Your task to perform on an android device: Go to ESPN.com Image 0: 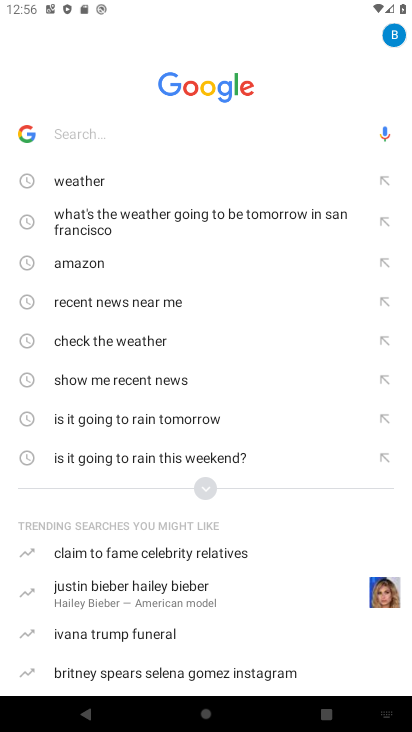
Step 0: press home button
Your task to perform on an android device: Go to ESPN.com Image 1: 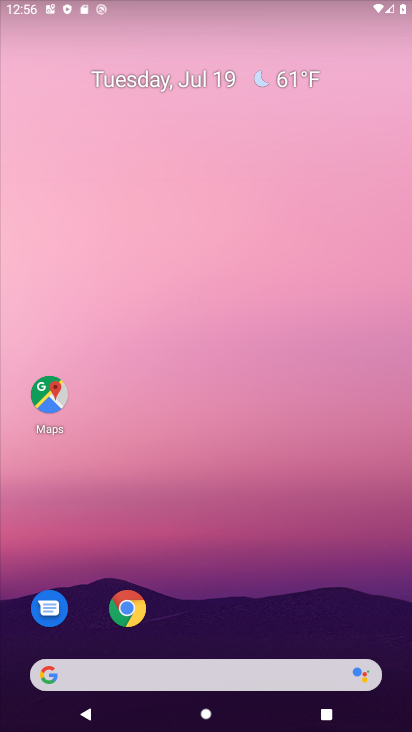
Step 1: drag from (263, 537) to (330, 98)
Your task to perform on an android device: Go to ESPN.com Image 2: 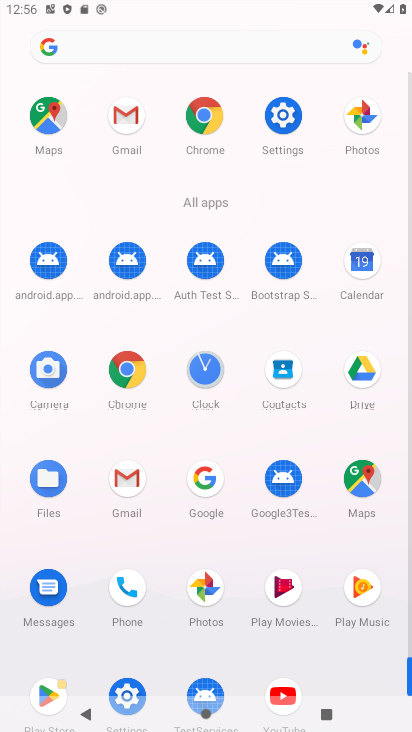
Step 2: click (202, 121)
Your task to perform on an android device: Go to ESPN.com Image 3: 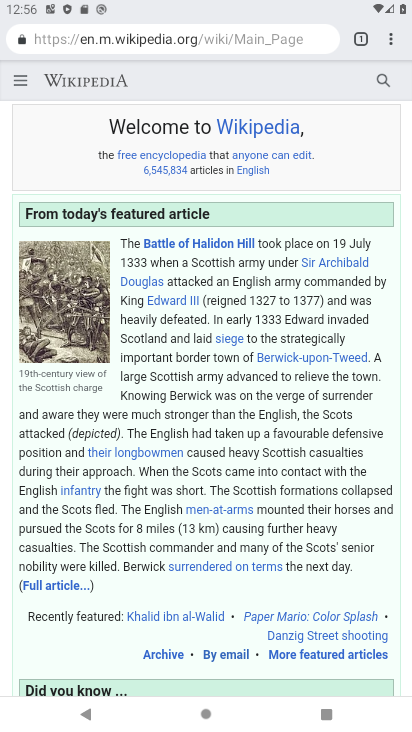
Step 3: press back button
Your task to perform on an android device: Go to ESPN.com Image 4: 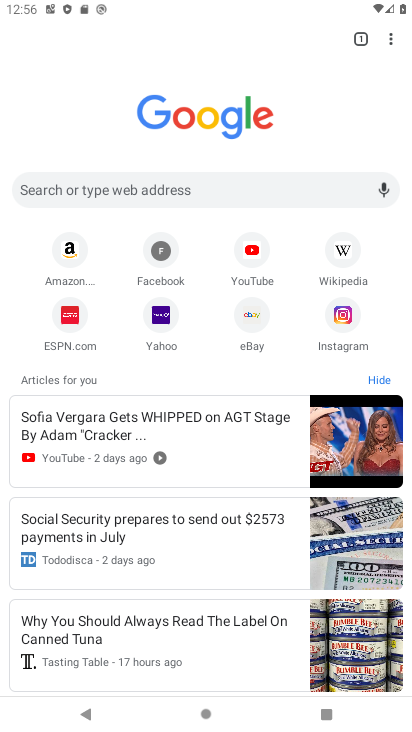
Step 4: click (55, 329)
Your task to perform on an android device: Go to ESPN.com Image 5: 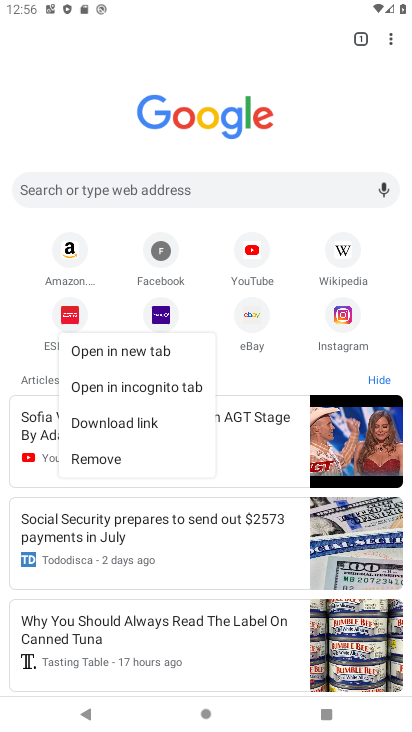
Step 5: click (81, 304)
Your task to perform on an android device: Go to ESPN.com Image 6: 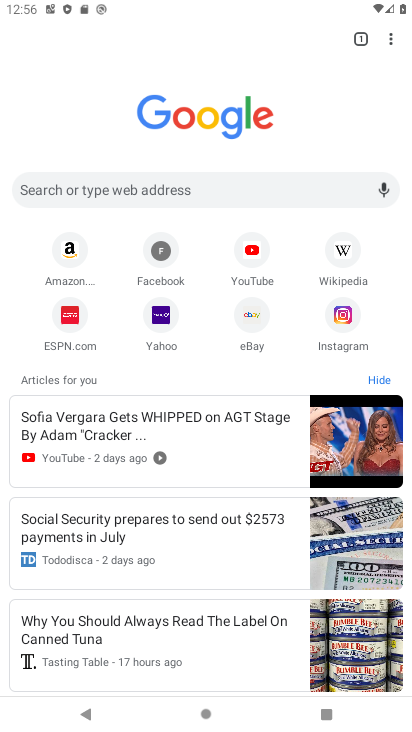
Step 6: click (67, 317)
Your task to perform on an android device: Go to ESPN.com Image 7: 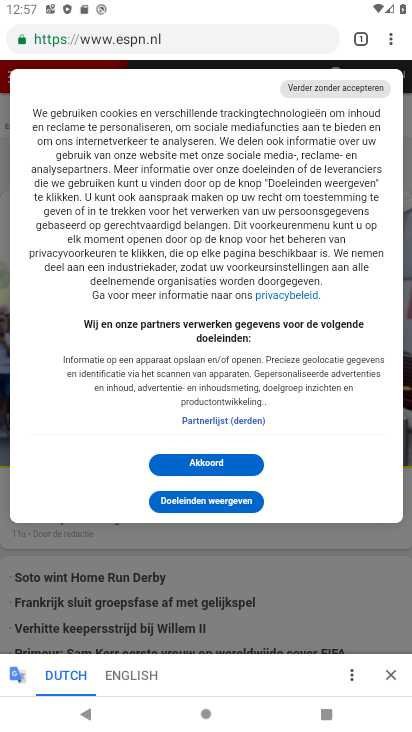
Step 7: task complete